Your task to perform on an android device: Check the news Image 0: 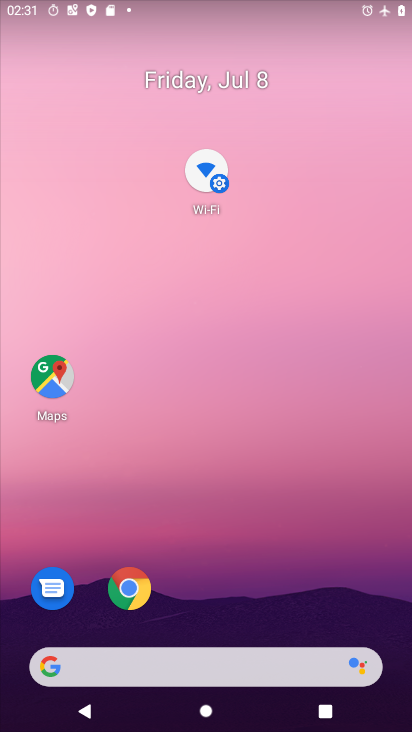
Step 0: drag from (267, 560) to (204, 6)
Your task to perform on an android device: Check the news Image 1: 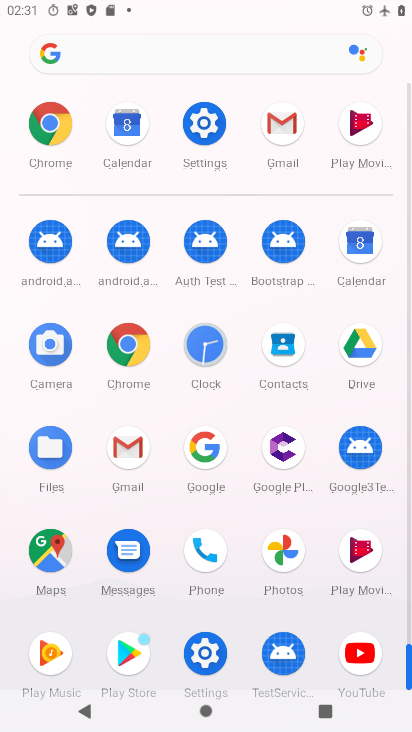
Step 1: click (241, 51)
Your task to perform on an android device: Check the news Image 2: 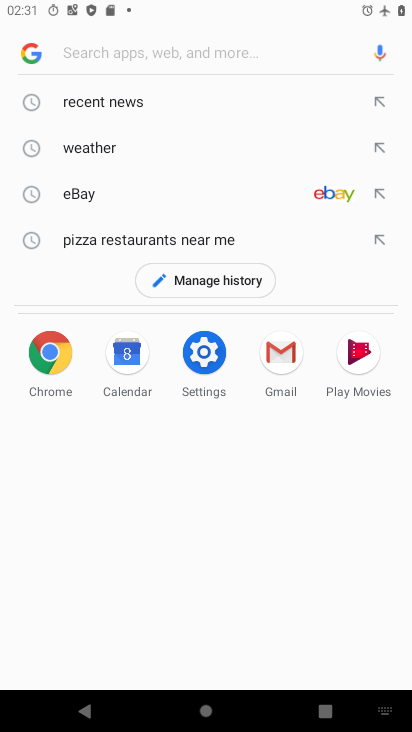
Step 2: type "news"
Your task to perform on an android device: Check the news Image 3: 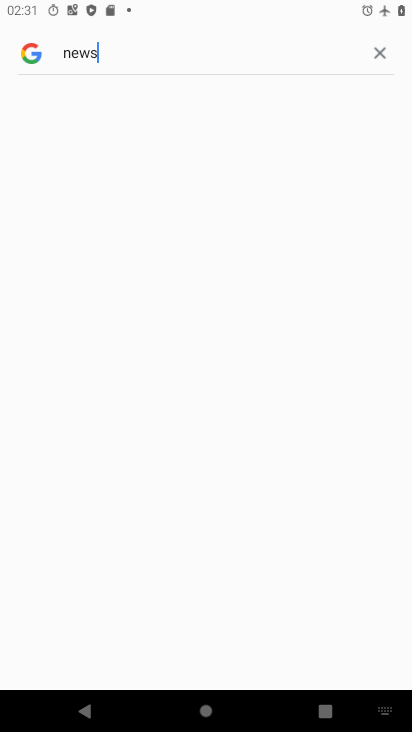
Step 3: type ""
Your task to perform on an android device: Check the news Image 4: 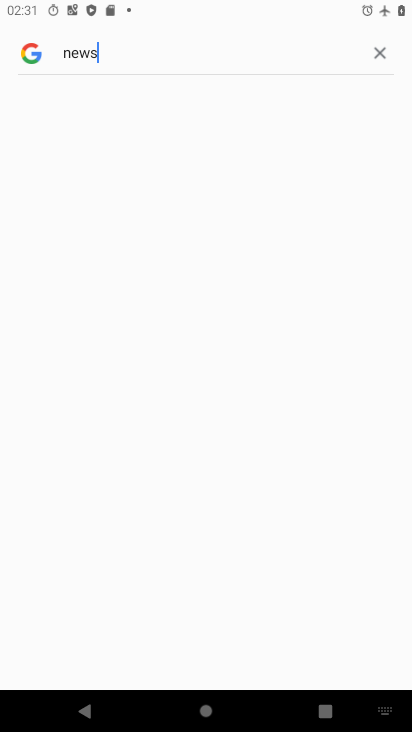
Step 4: click (277, 226)
Your task to perform on an android device: Check the news Image 5: 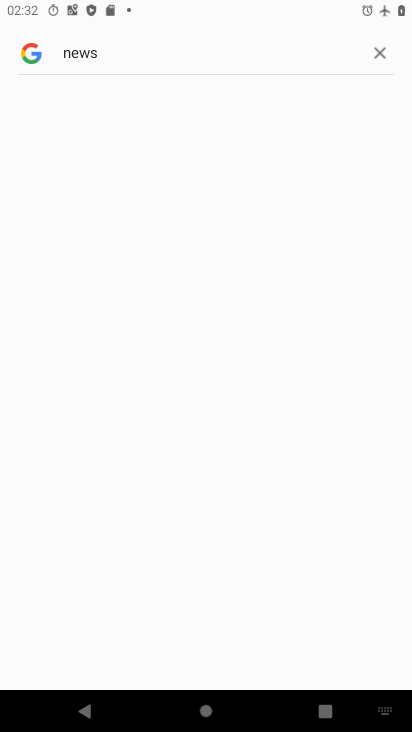
Step 5: click (195, 133)
Your task to perform on an android device: Check the news Image 6: 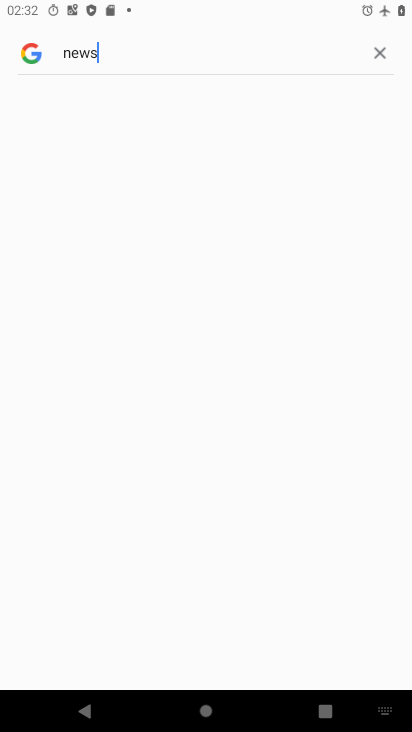
Step 6: task complete